Your task to perform on an android device: Open calendar and show me the first week of next month Image 0: 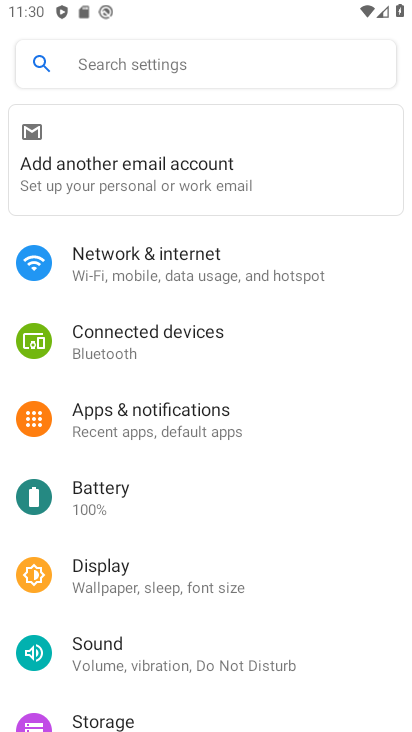
Step 0: press home button
Your task to perform on an android device: Open calendar and show me the first week of next month Image 1: 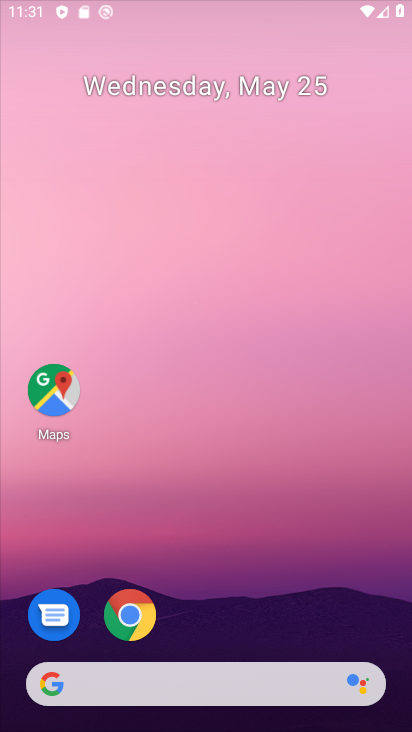
Step 1: drag from (367, 633) to (263, 77)
Your task to perform on an android device: Open calendar and show me the first week of next month Image 2: 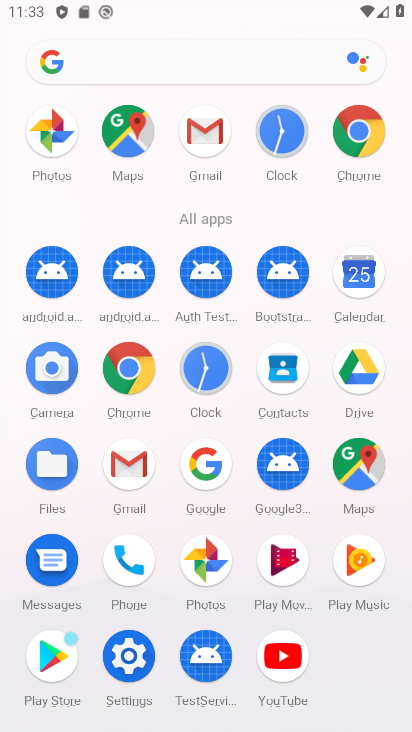
Step 2: click (349, 277)
Your task to perform on an android device: Open calendar and show me the first week of next month Image 3: 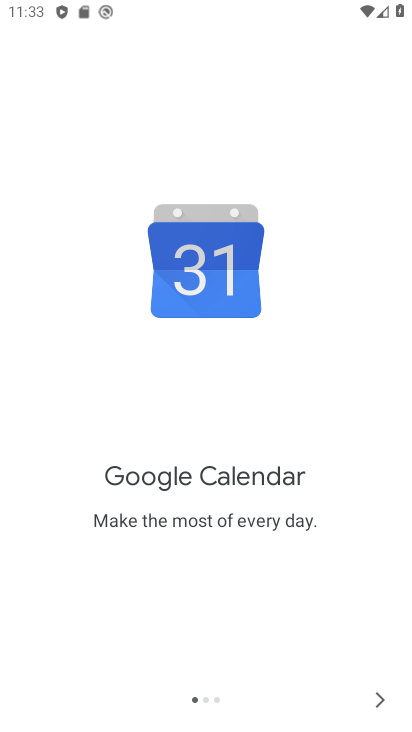
Step 3: click (370, 708)
Your task to perform on an android device: Open calendar and show me the first week of next month Image 4: 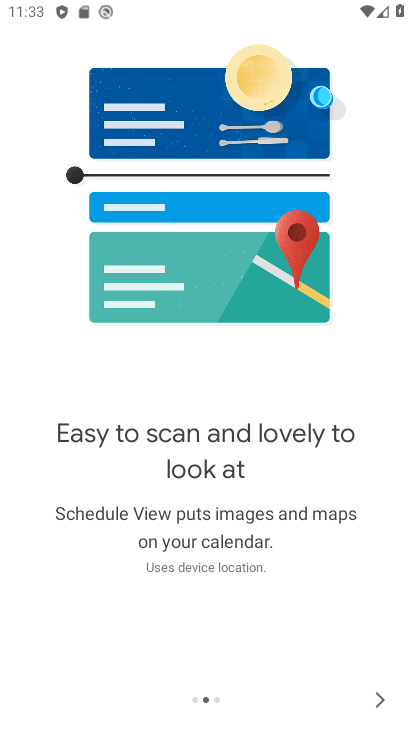
Step 4: click (383, 701)
Your task to perform on an android device: Open calendar and show me the first week of next month Image 5: 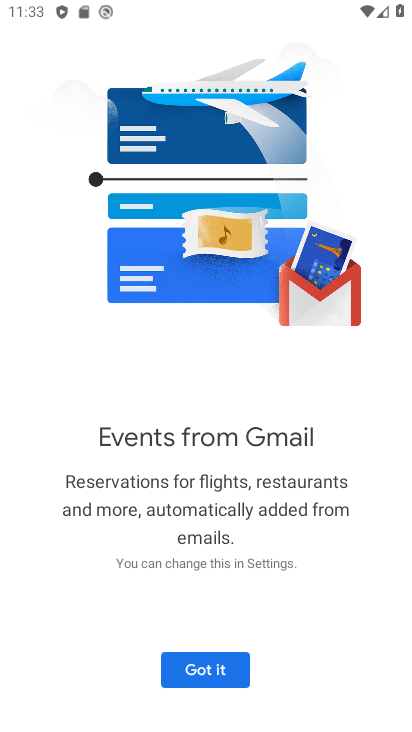
Step 5: click (224, 673)
Your task to perform on an android device: Open calendar and show me the first week of next month Image 6: 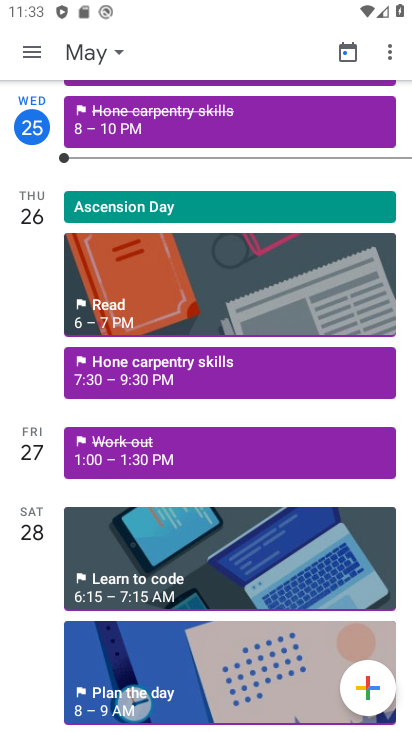
Step 6: click (64, 58)
Your task to perform on an android device: Open calendar and show me the first week of next month Image 7: 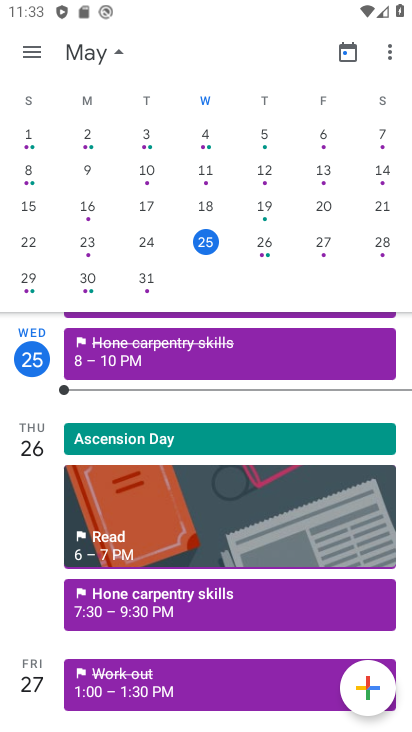
Step 7: drag from (373, 207) to (26, 175)
Your task to perform on an android device: Open calendar and show me the first week of next month Image 8: 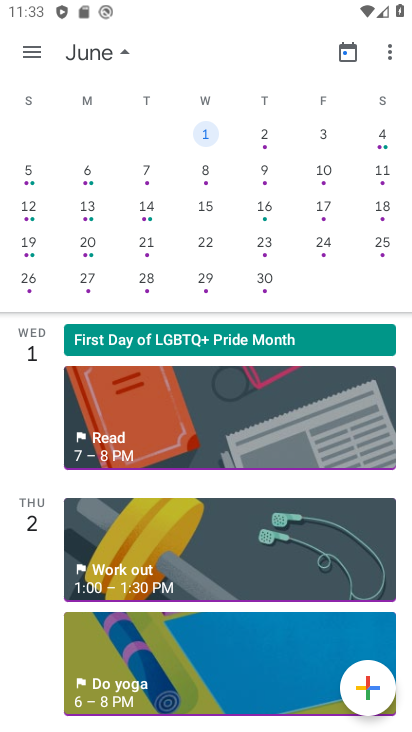
Step 8: click (147, 180)
Your task to perform on an android device: Open calendar and show me the first week of next month Image 9: 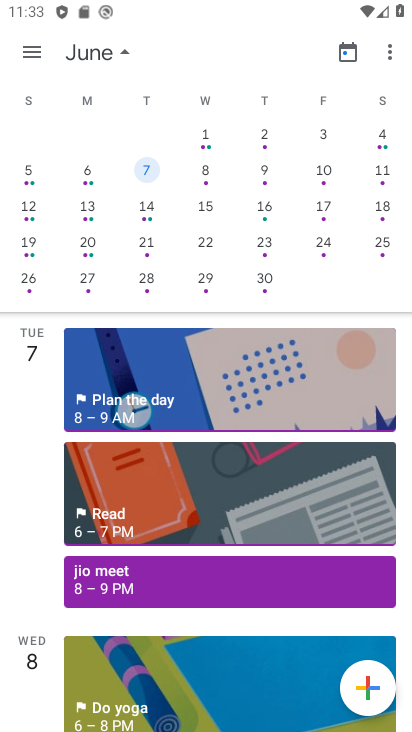
Step 9: task complete